Your task to perform on an android device: Open the map Image 0: 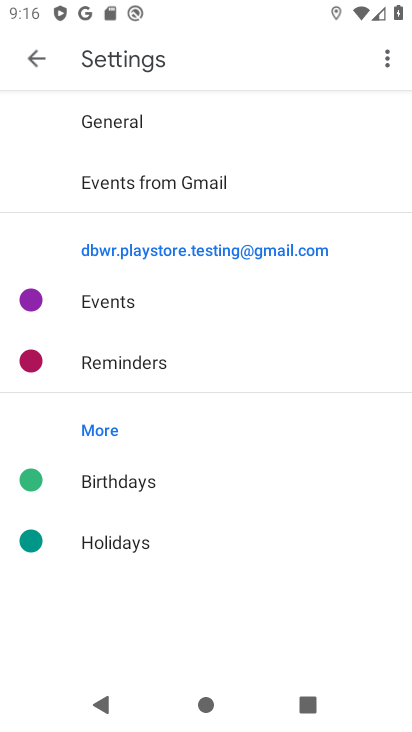
Step 0: press home button
Your task to perform on an android device: Open the map Image 1: 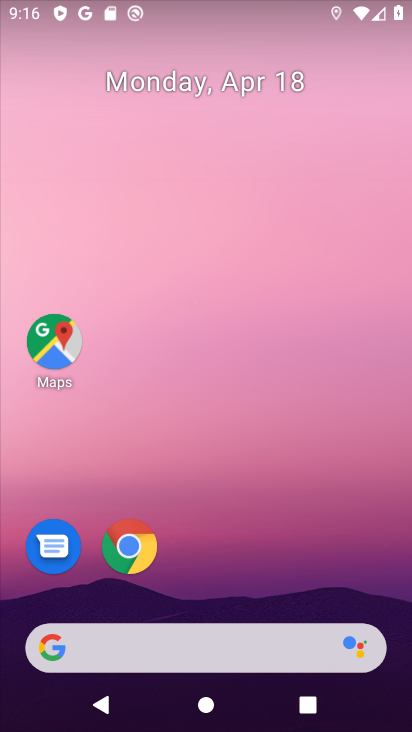
Step 1: click (47, 359)
Your task to perform on an android device: Open the map Image 2: 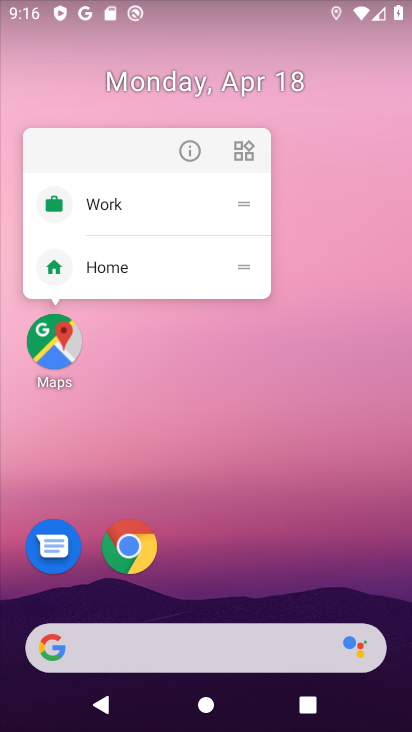
Step 2: click (61, 362)
Your task to perform on an android device: Open the map Image 3: 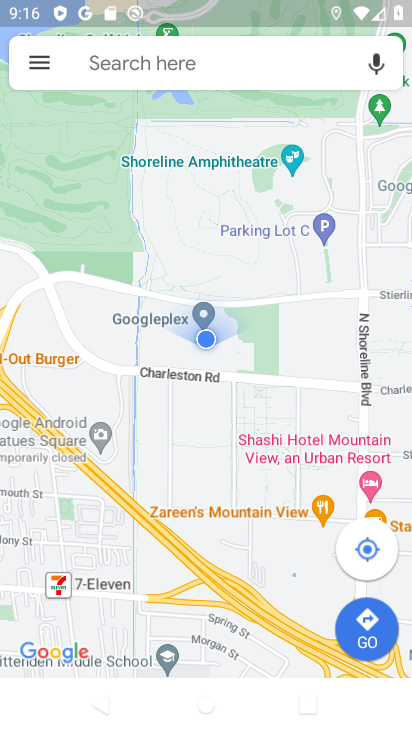
Step 3: task complete